Your task to perform on an android device: turn notification dots on Image 0: 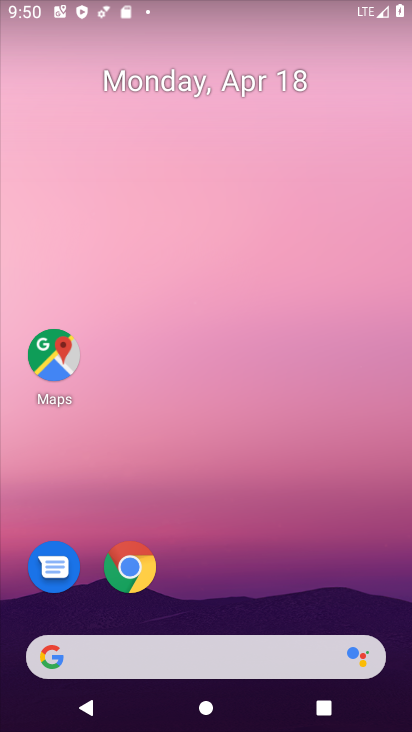
Step 0: drag from (341, 577) to (359, 143)
Your task to perform on an android device: turn notification dots on Image 1: 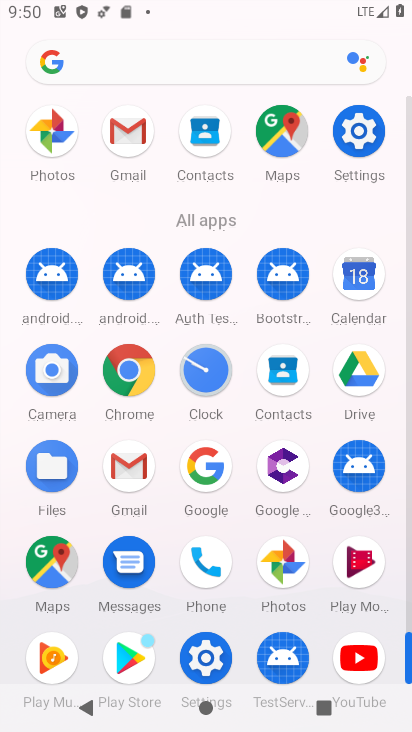
Step 1: click (359, 137)
Your task to perform on an android device: turn notification dots on Image 2: 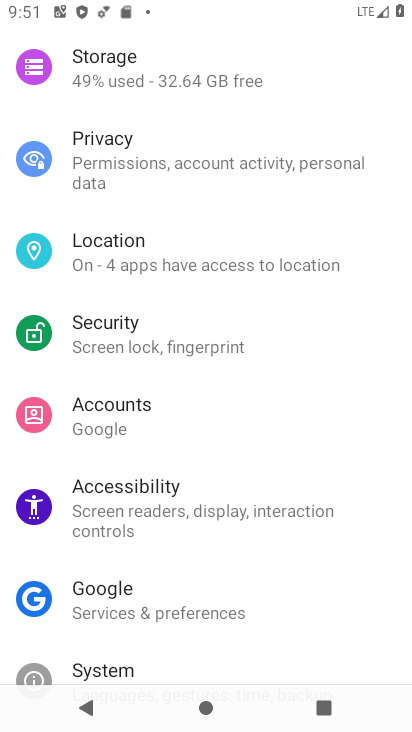
Step 2: drag from (294, 148) to (298, 488)
Your task to perform on an android device: turn notification dots on Image 3: 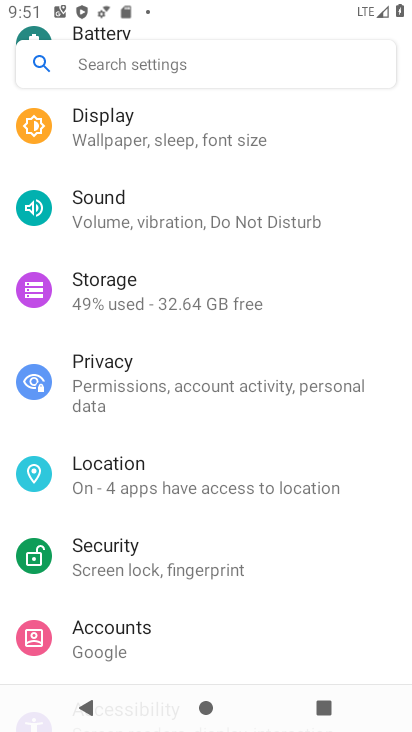
Step 3: drag from (304, 172) to (311, 566)
Your task to perform on an android device: turn notification dots on Image 4: 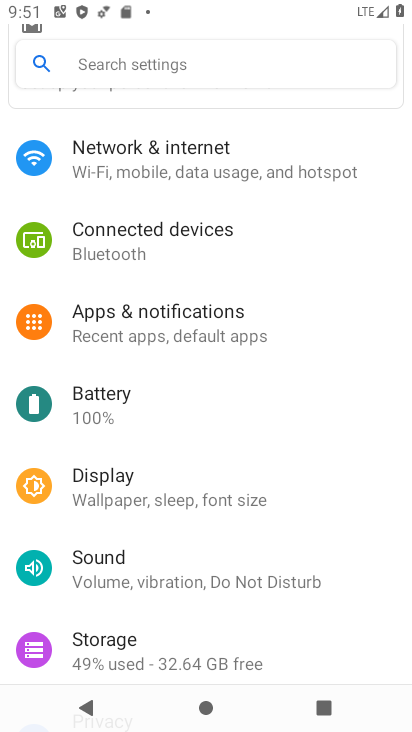
Step 4: click (169, 315)
Your task to perform on an android device: turn notification dots on Image 5: 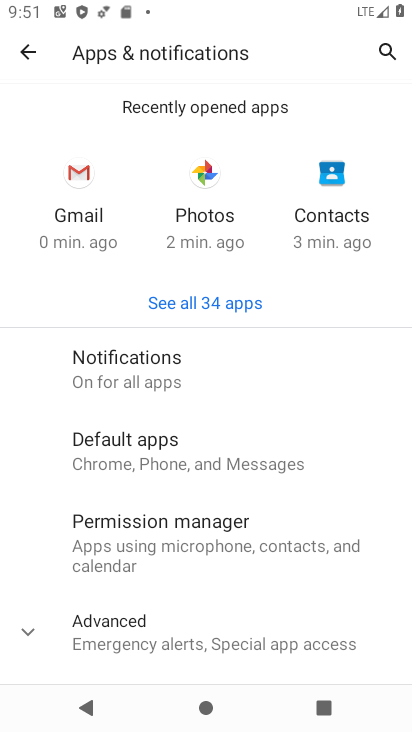
Step 5: click (148, 363)
Your task to perform on an android device: turn notification dots on Image 6: 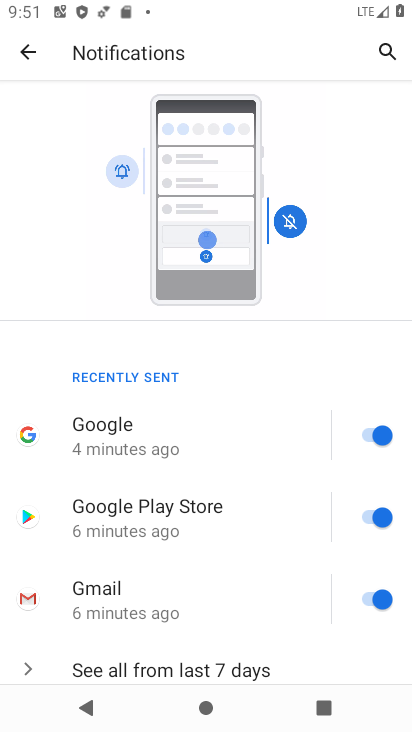
Step 6: drag from (292, 677) to (346, 273)
Your task to perform on an android device: turn notification dots on Image 7: 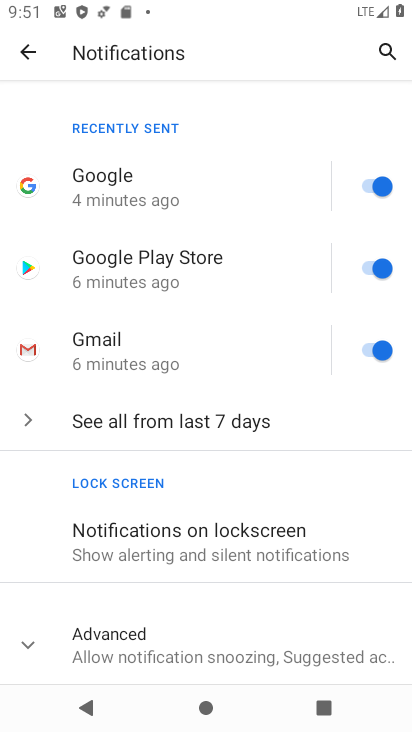
Step 7: click (261, 637)
Your task to perform on an android device: turn notification dots on Image 8: 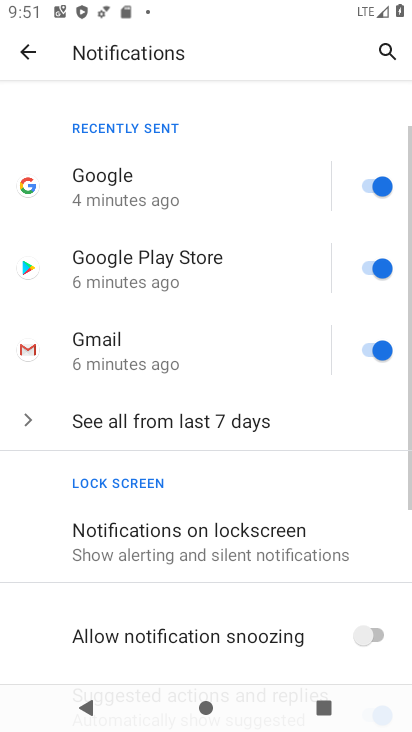
Step 8: task complete